Your task to perform on an android device: change the clock display to digital Image 0: 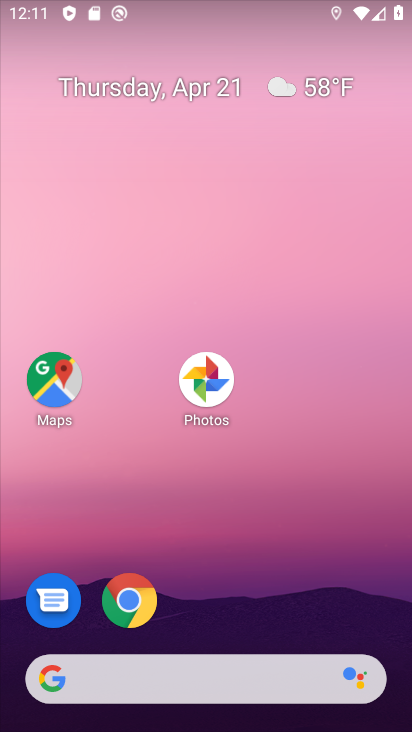
Step 0: drag from (198, 652) to (185, 16)
Your task to perform on an android device: change the clock display to digital Image 1: 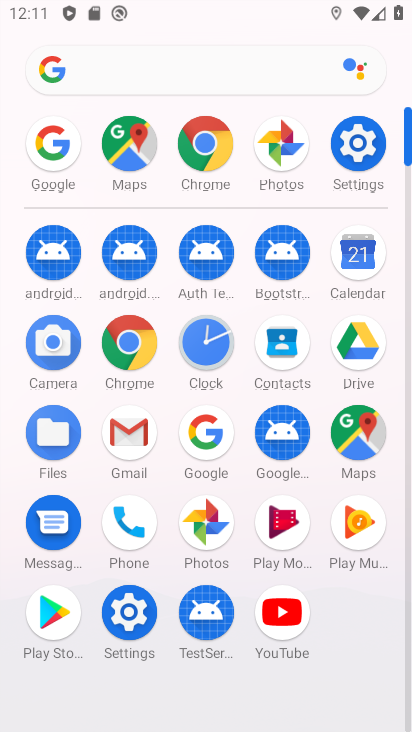
Step 1: click (218, 360)
Your task to perform on an android device: change the clock display to digital Image 2: 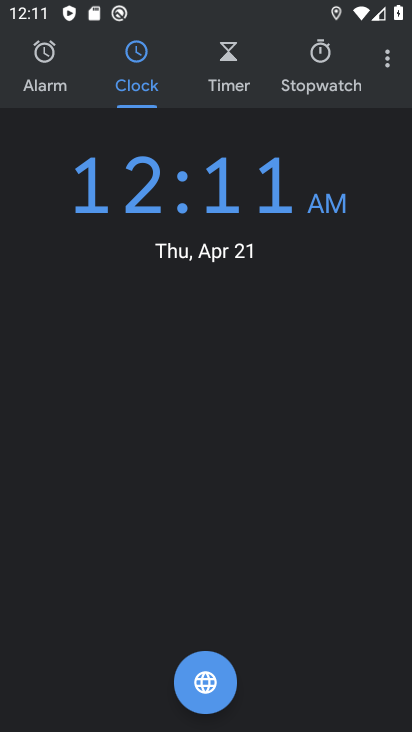
Step 2: click (386, 62)
Your task to perform on an android device: change the clock display to digital Image 3: 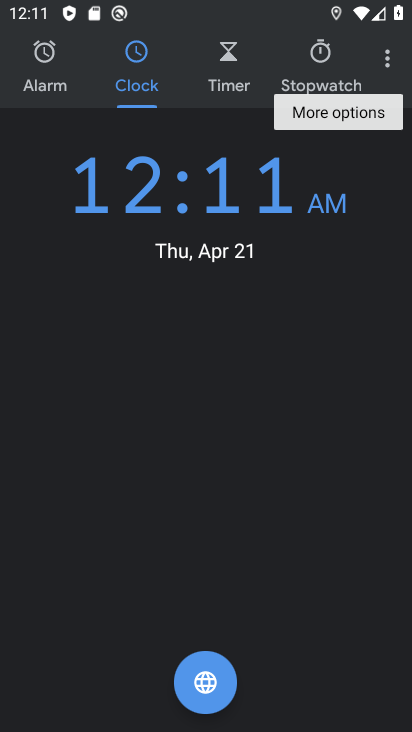
Step 3: click (368, 96)
Your task to perform on an android device: change the clock display to digital Image 4: 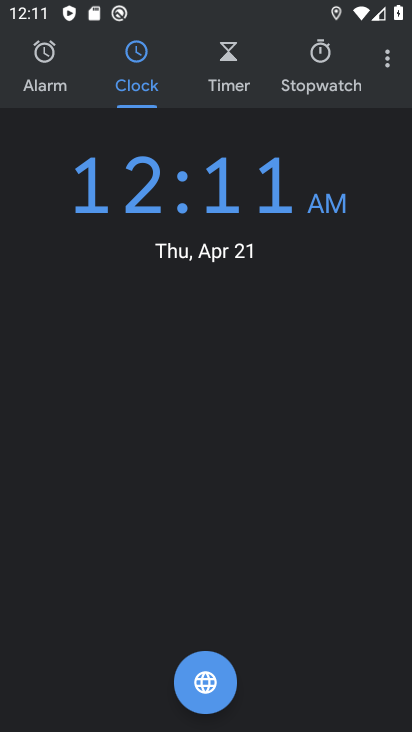
Step 4: click (390, 60)
Your task to perform on an android device: change the clock display to digital Image 5: 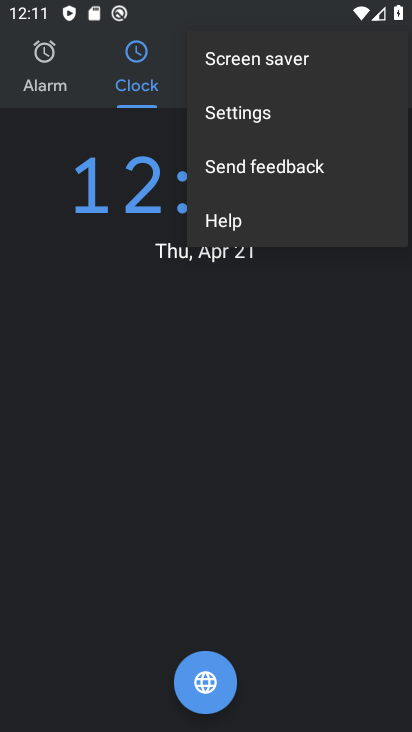
Step 5: click (302, 113)
Your task to perform on an android device: change the clock display to digital Image 6: 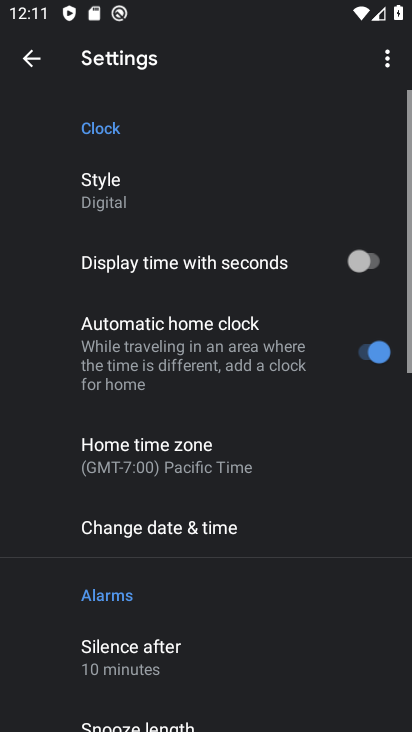
Step 6: click (154, 209)
Your task to perform on an android device: change the clock display to digital Image 7: 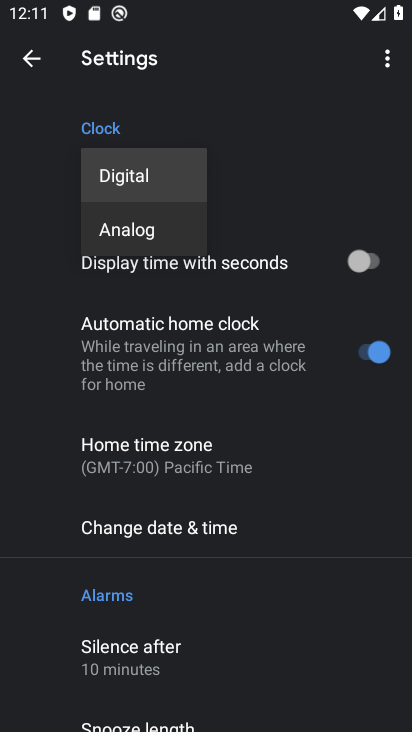
Step 7: click (150, 191)
Your task to perform on an android device: change the clock display to digital Image 8: 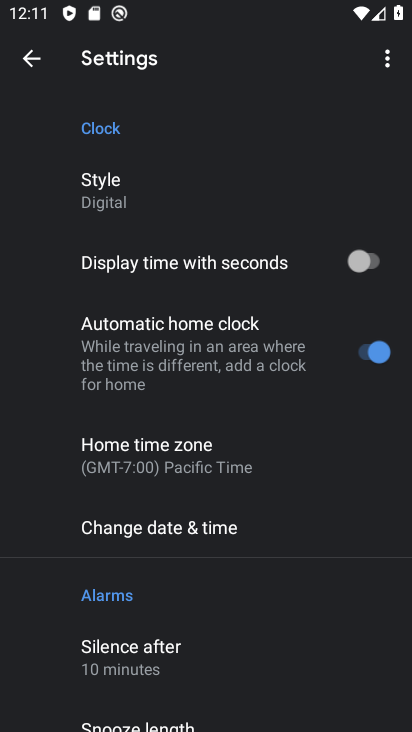
Step 8: task complete